Your task to perform on an android device: When is my next meeting? Image 0: 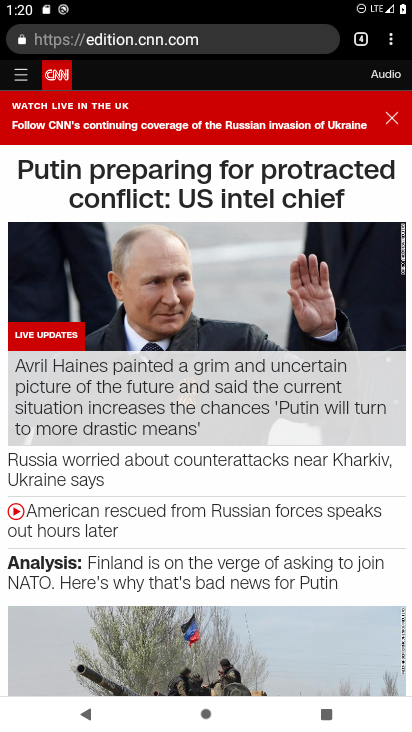
Step 0: press home button
Your task to perform on an android device: When is my next meeting? Image 1: 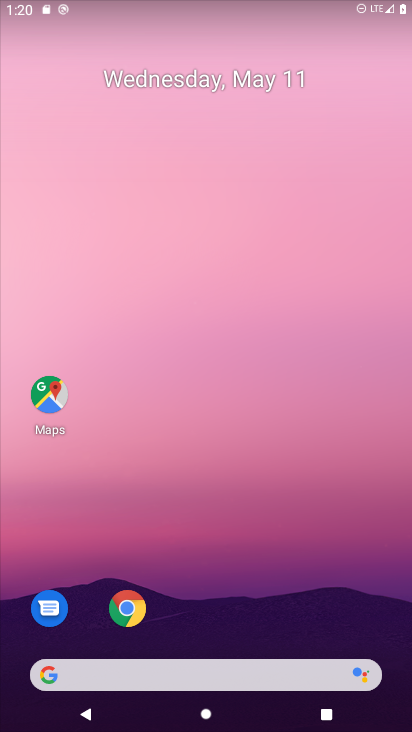
Step 1: drag from (314, 573) to (168, 10)
Your task to perform on an android device: When is my next meeting? Image 2: 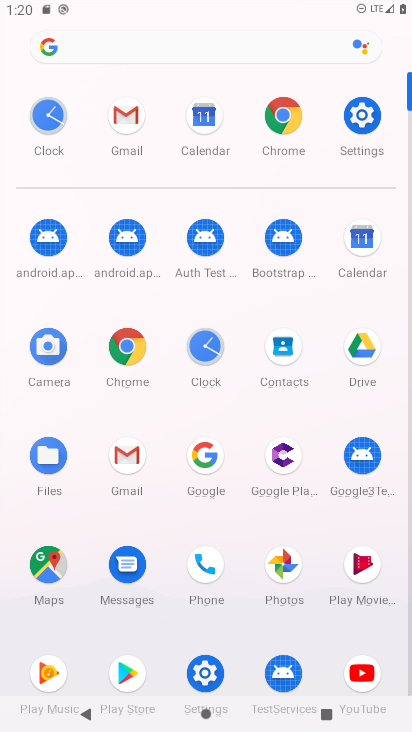
Step 2: click (363, 223)
Your task to perform on an android device: When is my next meeting? Image 3: 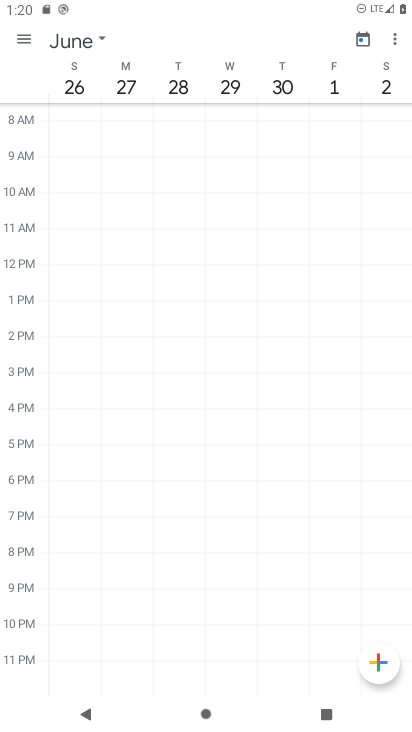
Step 3: click (25, 31)
Your task to perform on an android device: When is my next meeting? Image 4: 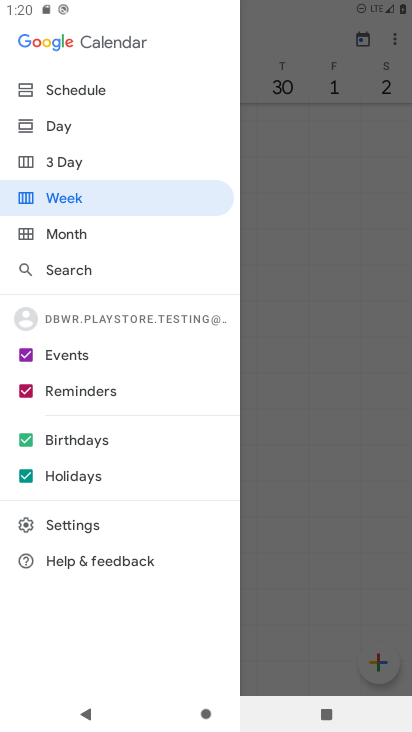
Step 4: click (69, 244)
Your task to perform on an android device: When is my next meeting? Image 5: 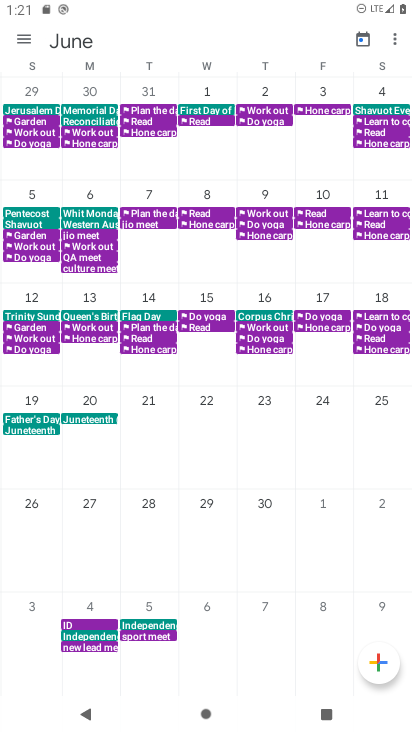
Step 5: drag from (23, 179) to (411, 152)
Your task to perform on an android device: When is my next meeting? Image 6: 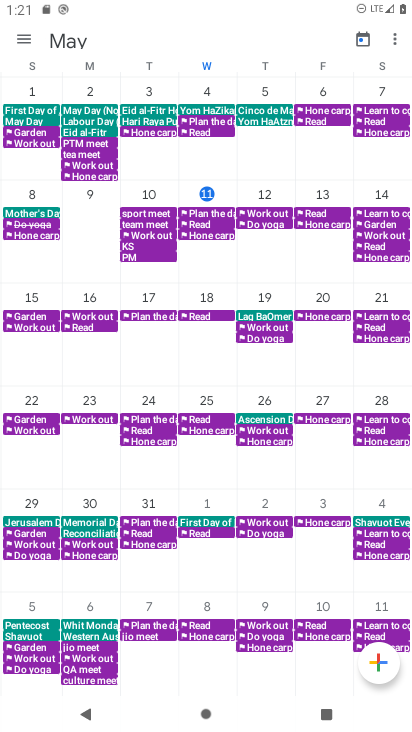
Step 6: click (165, 216)
Your task to perform on an android device: When is my next meeting? Image 7: 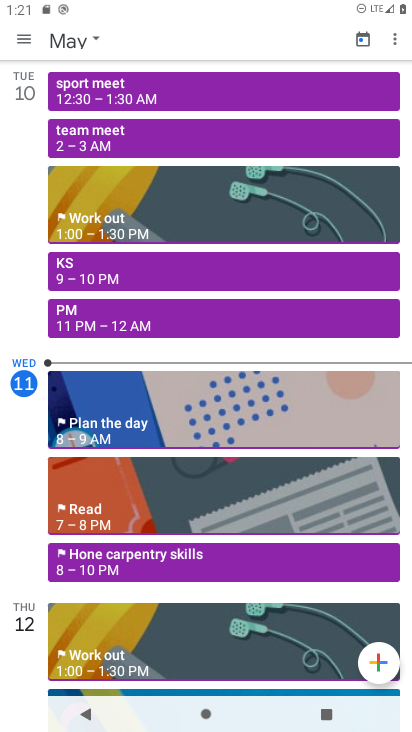
Step 7: task complete